Your task to perform on an android device: move an email to a new category in the gmail app Image 0: 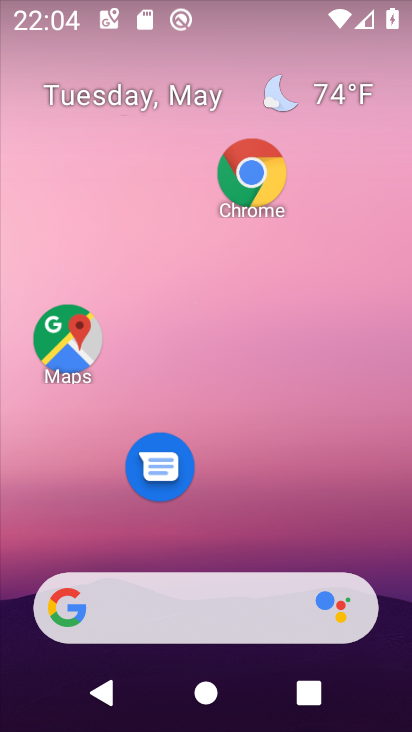
Step 0: drag from (304, 541) to (375, 13)
Your task to perform on an android device: move an email to a new category in the gmail app Image 1: 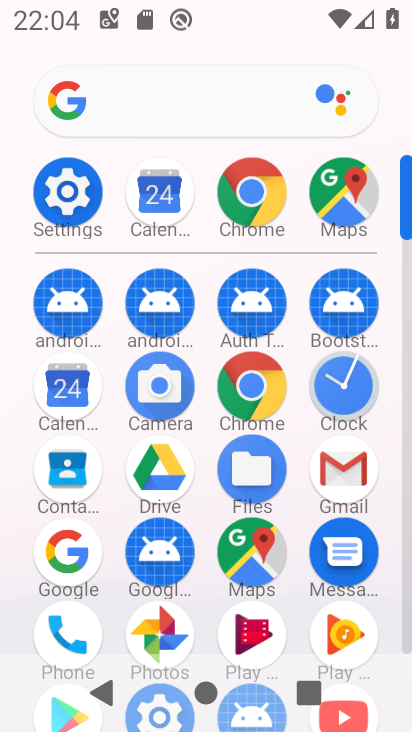
Step 1: click (340, 480)
Your task to perform on an android device: move an email to a new category in the gmail app Image 2: 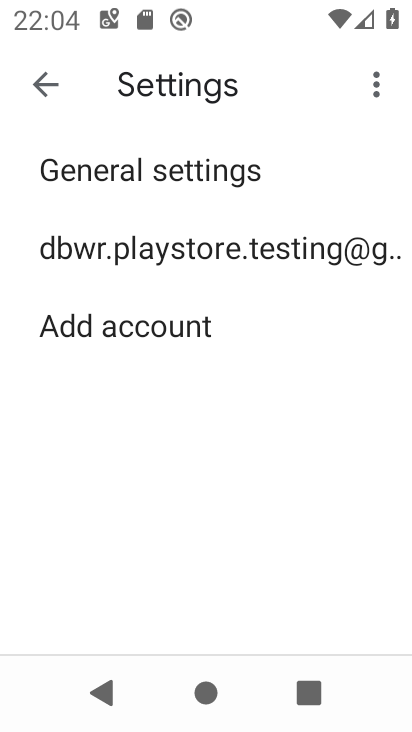
Step 2: click (45, 80)
Your task to perform on an android device: move an email to a new category in the gmail app Image 3: 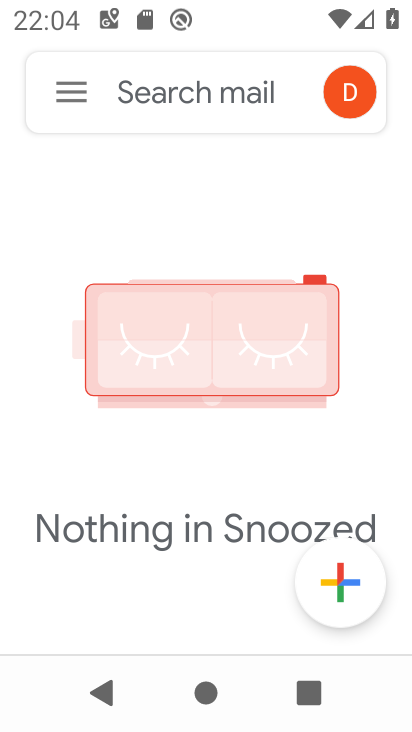
Step 3: click (48, 88)
Your task to perform on an android device: move an email to a new category in the gmail app Image 4: 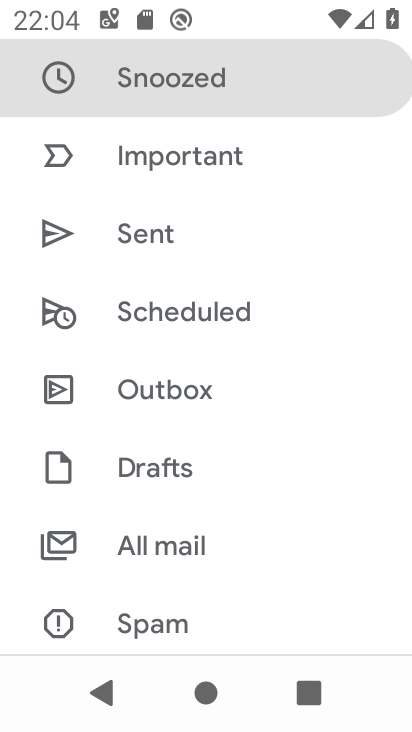
Step 4: click (184, 546)
Your task to perform on an android device: move an email to a new category in the gmail app Image 5: 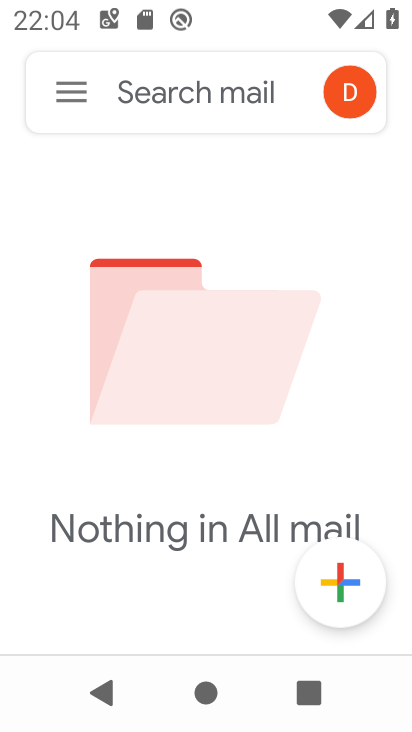
Step 5: task complete